Your task to perform on an android device: Go to eBay Image 0: 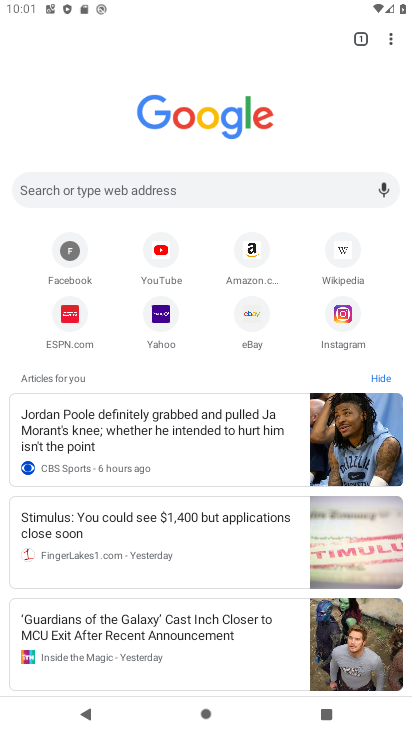
Step 0: click (251, 323)
Your task to perform on an android device: Go to eBay Image 1: 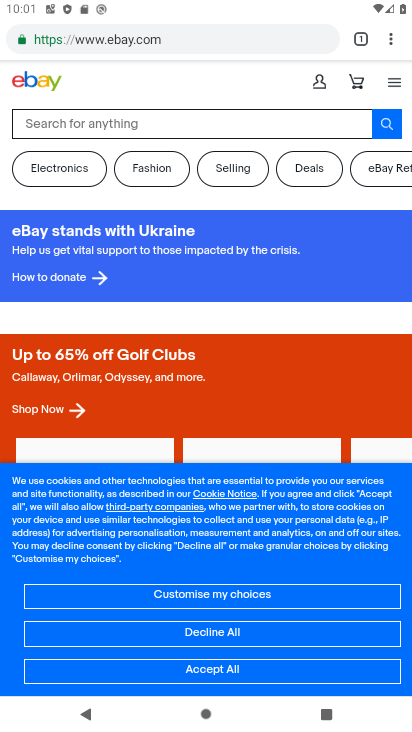
Step 1: click (272, 672)
Your task to perform on an android device: Go to eBay Image 2: 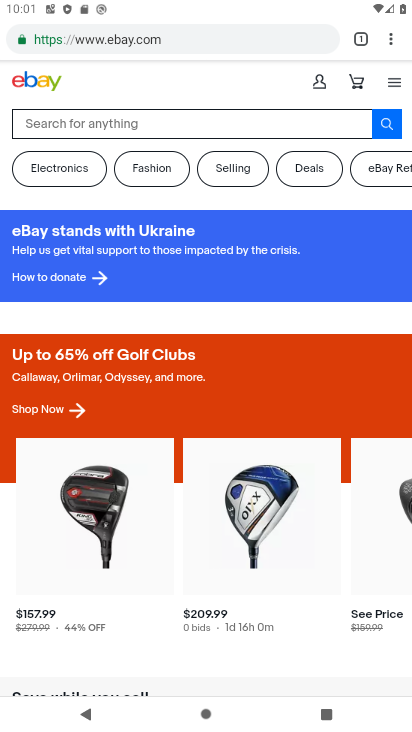
Step 2: task complete